Your task to perform on an android device: turn off wifi Image 0: 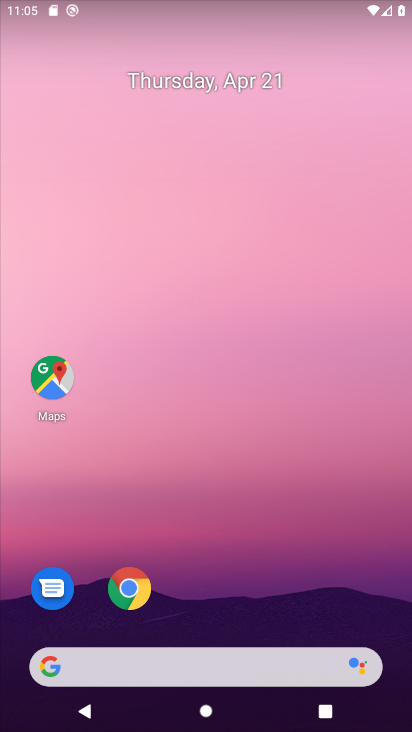
Step 0: drag from (265, 634) to (181, 78)
Your task to perform on an android device: turn off wifi Image 1: 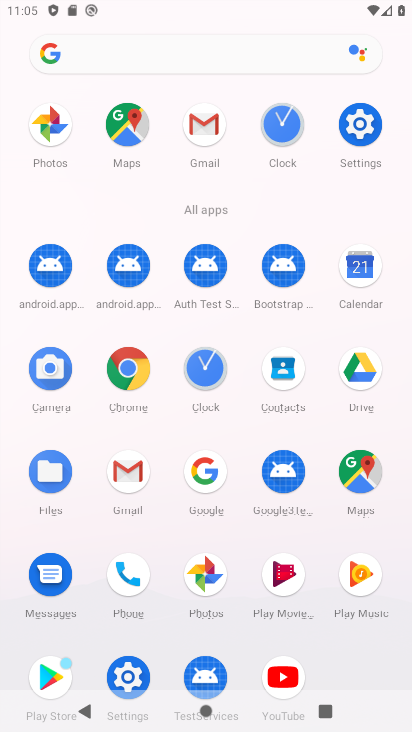
Step 1: click (363, 123)
Your task to perform on an android device: turn off wifi Image 2: 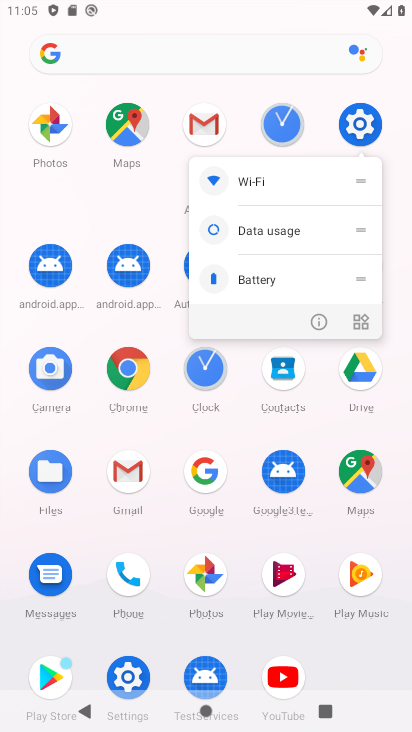
Step 2: click (363, 123)
Your task to perform on an android device: turn off wifi Image 3: 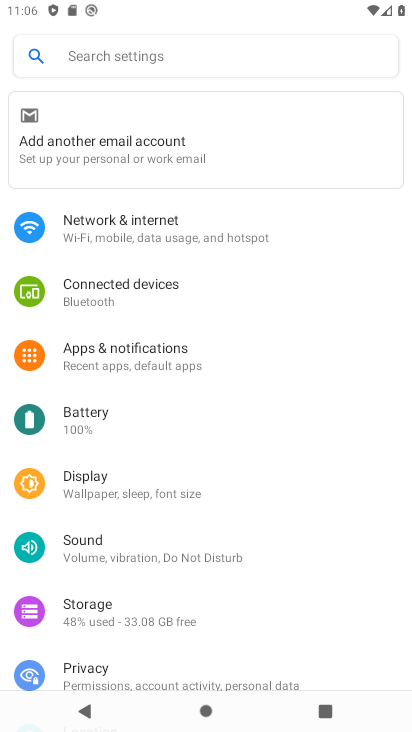
Step 3: click (106, 226)
Your task to perform on an android device: turn off wifi Image 4: 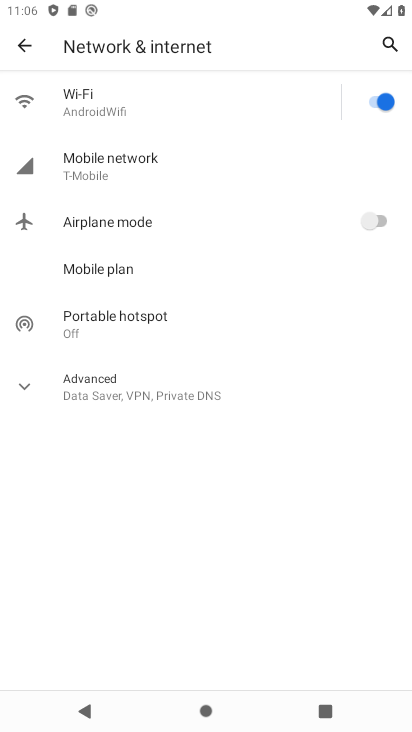
Step 4: click (106, 97)
Your task to perform on an android device: turn off wifi Image 5: 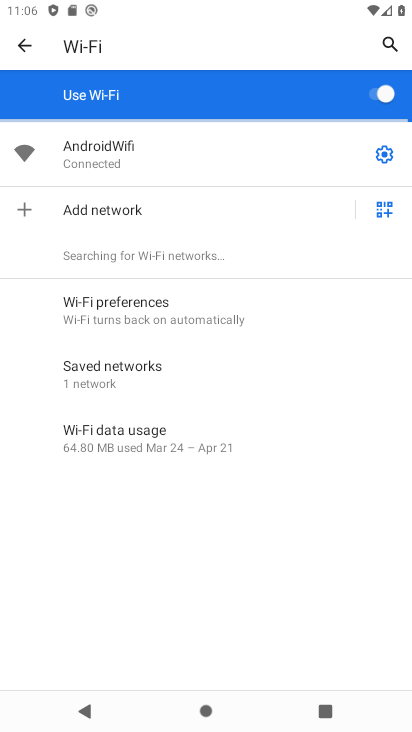
Step 5: click (378, 96)
Your task to perform on an android device: turn off wifi Image 6: 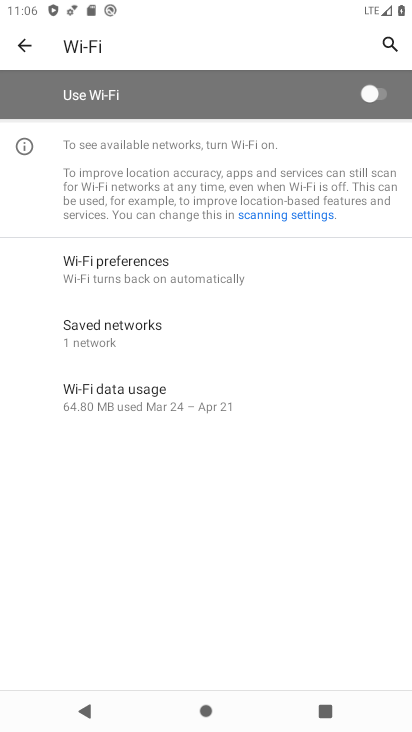
Step 6: task complete